Your task to perform on an android device: Do I have any events this weekend? Image 0: 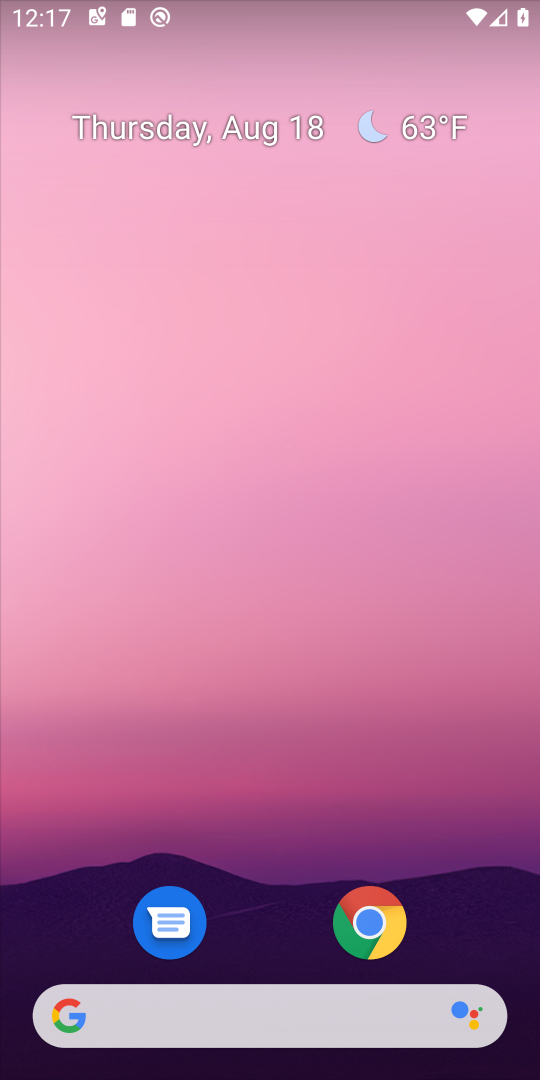
Step 0: drag from (263, 925) to (195, 256)
Your task to perform on an android device: Do I have any events this weekend? Image 1: 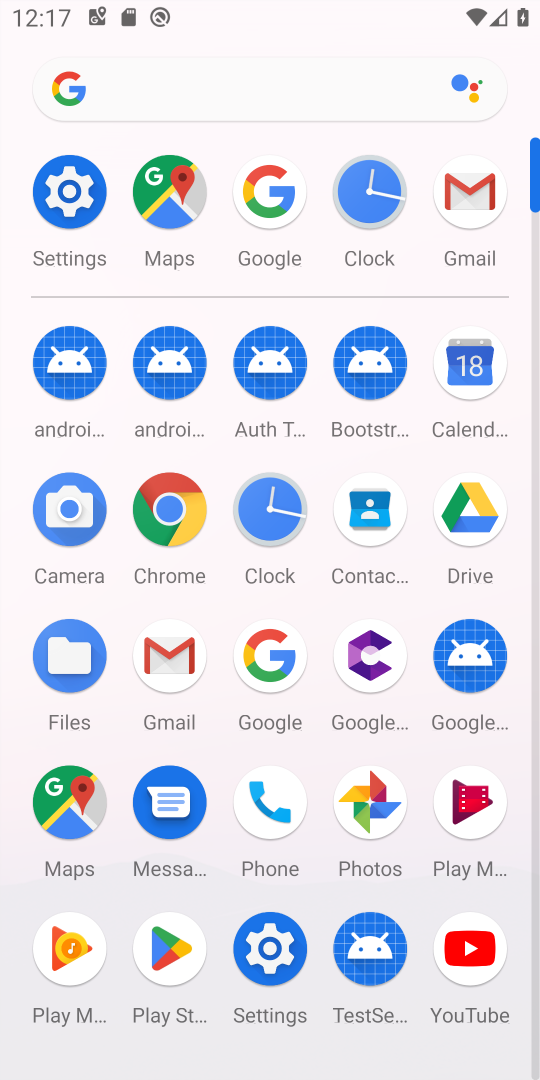
Step 1: click (482, 351)
Your task to perform on an android device: Do I have any events this weekend? Image 2: 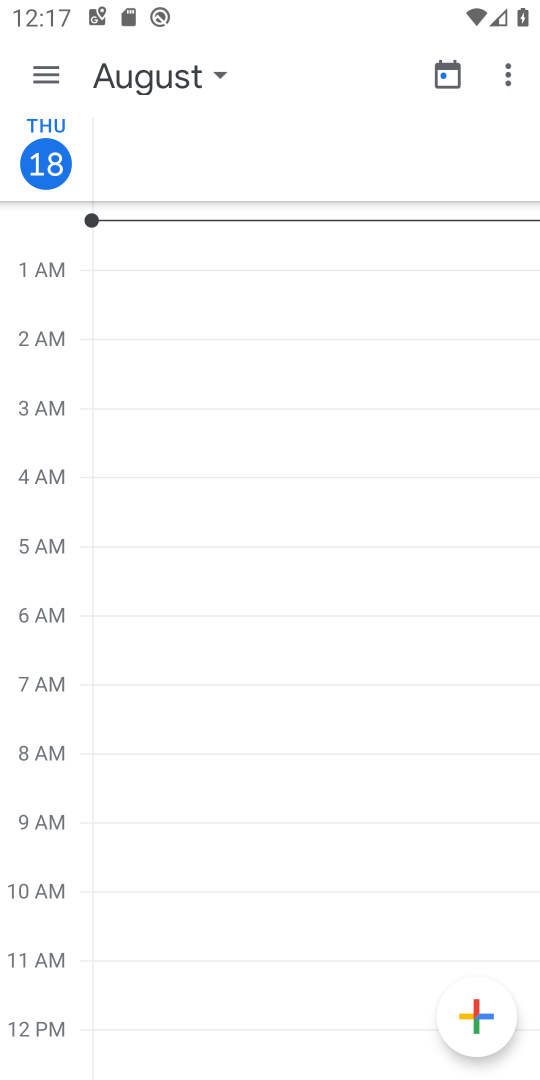
Step 2: click (43, 73)
Your task to perform on an android device: Do I have any events this weekend? Image 3: 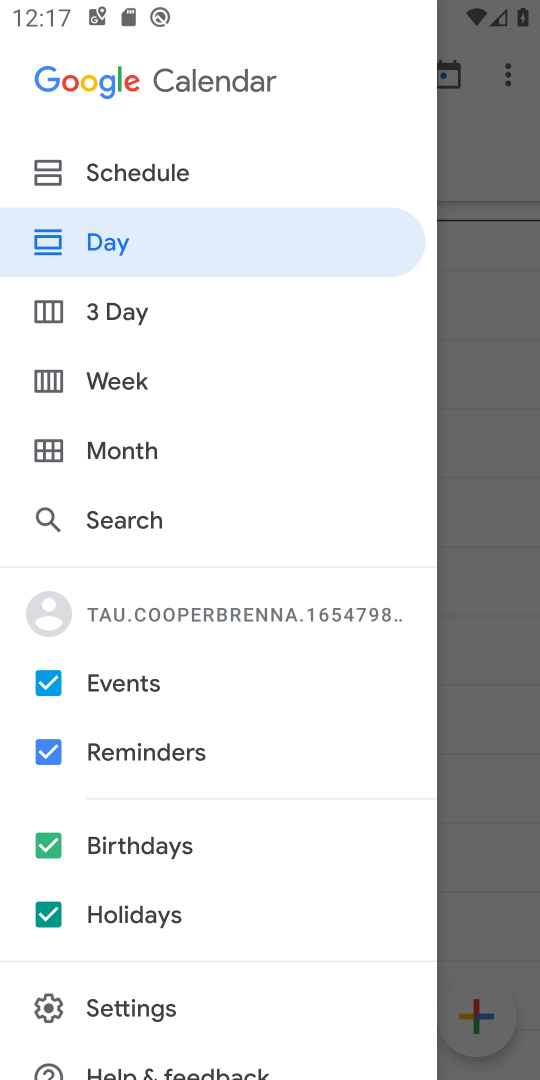
Step 3: click (121, 369)
Your task to perform on an android device: Do I have any events this weekend? Image 4: 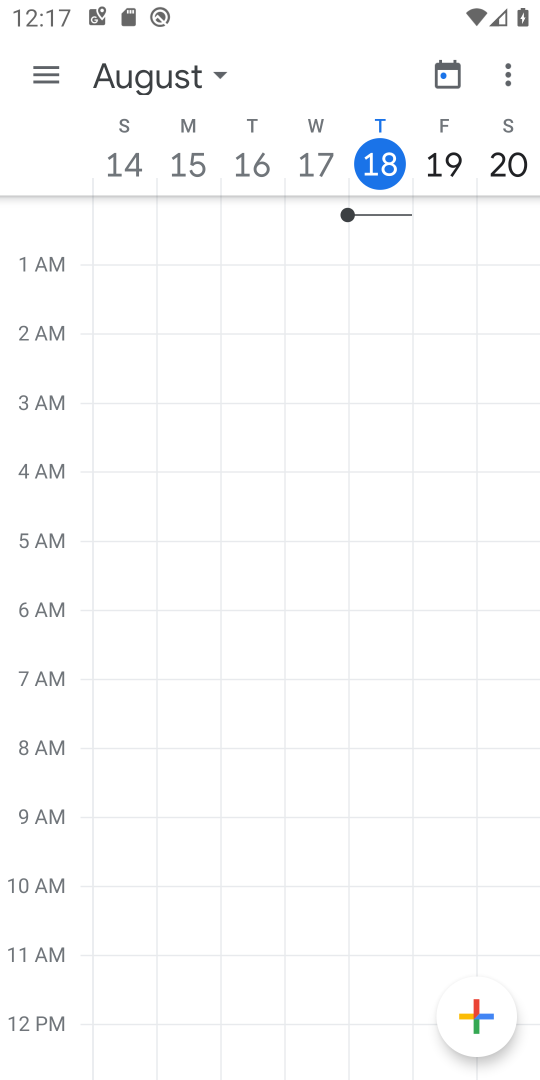
Step 4: task complete